Your task to perform on an android device: See recent photos Image 0: 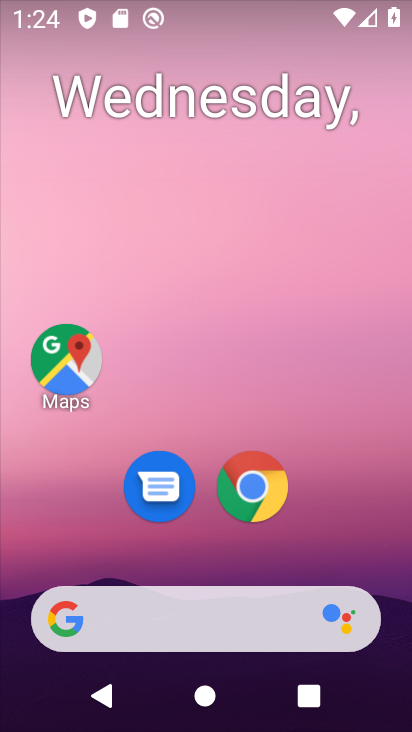
Step 0: drag from (128, 204) to (146, 0)
Your task to perform on an android device: See recent photos Image 1: 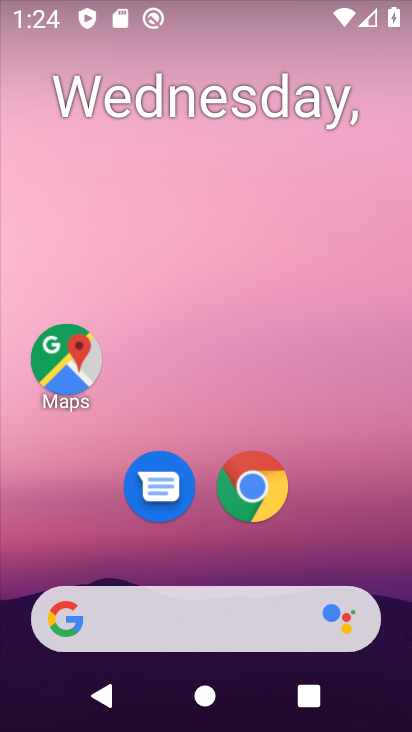
Step 1: drag from (171, 716) to (258, 87)
Your task to perform on an android device: See recent photos Image 2: 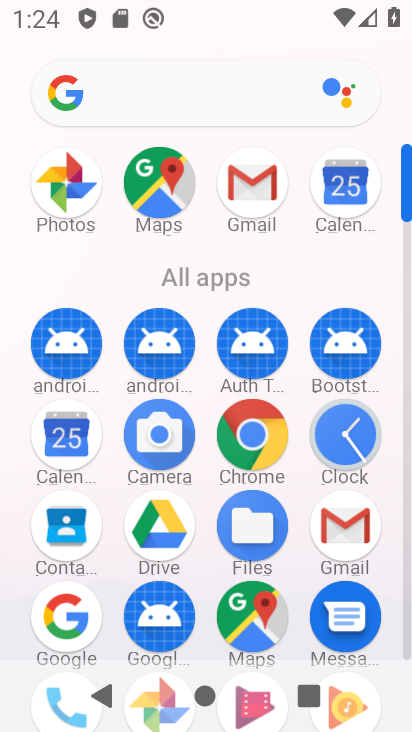
Step 2: click (83, 206)
Your task to perform on an android device: See recent photos Image 3: 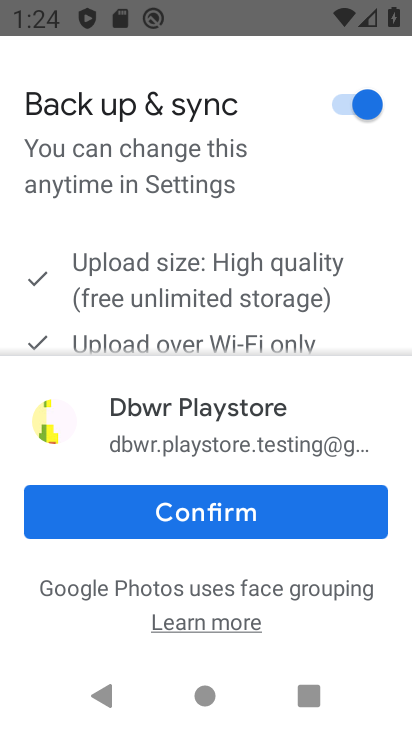
Step 3: click (331, 512)
Your task to perform on an android device: See recent photos Image 4: 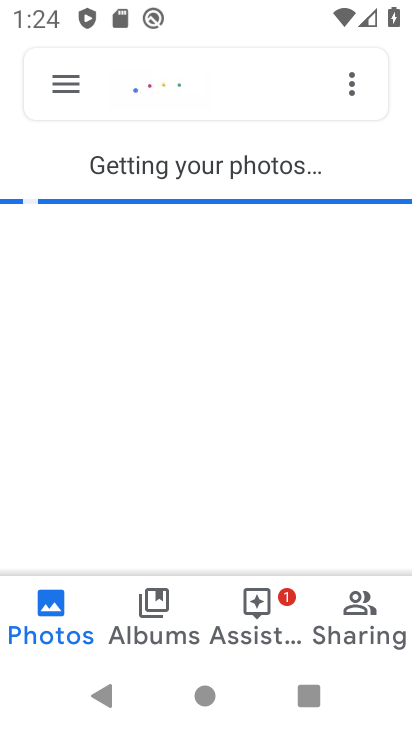
Step 4: task complete